Your task to perform on an android device: turn off picture-in-picture Image 0: 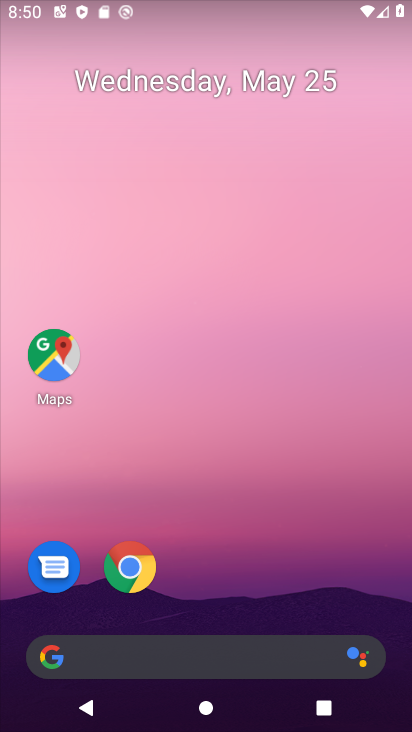
Step 0: drag from (313, 561) to (235, 248)
Your task to perform on an android device: turn off picture-in-picture Image 1: 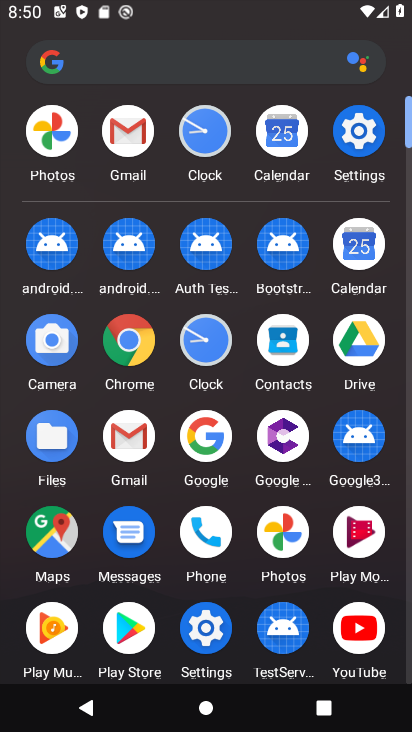
Step 1: click (350, 145)
Your task to perform on an android device: turn off picture-in-picture Image 2: 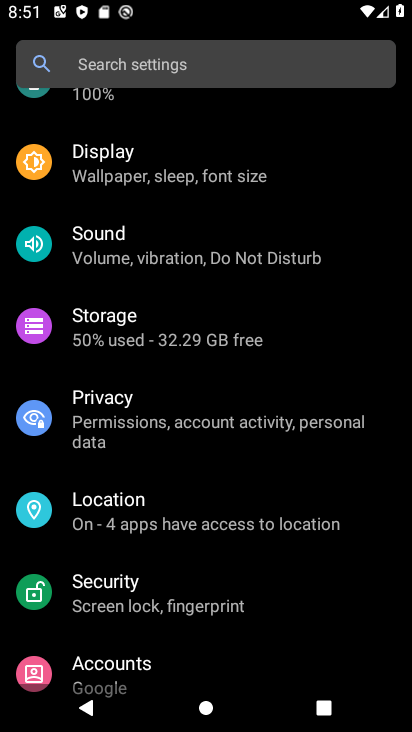
Step 2: click (181, 541)
Your task to perform on an android device: turn off picture-in-picture Image 3: 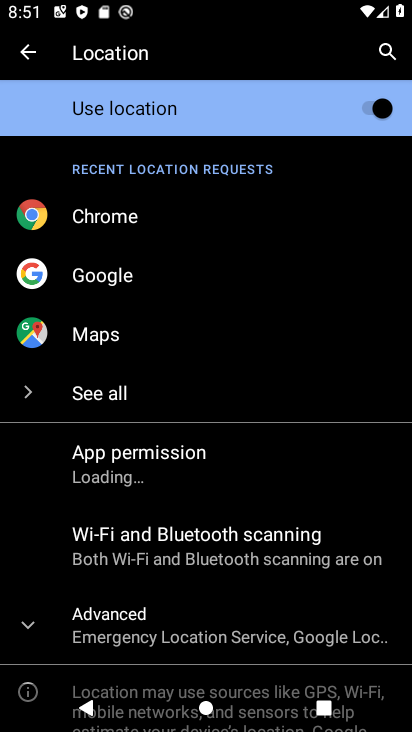
Step 3: task complete